Your task to perform on an android device: turn on airplane mode Image 0: 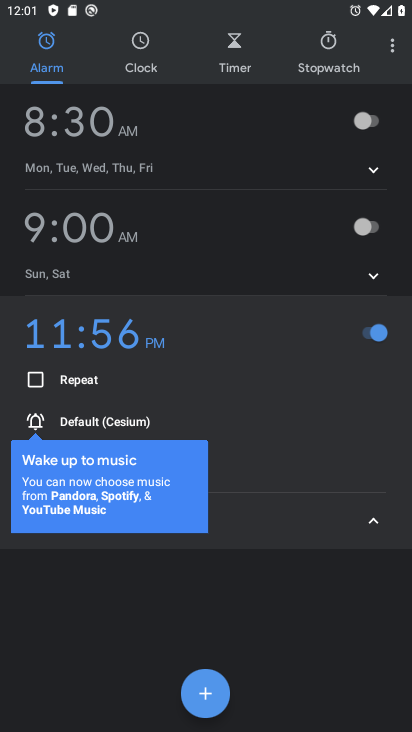
Step 0: press home button
Your task to perform on an android device: turn on airplane mode Image 1: 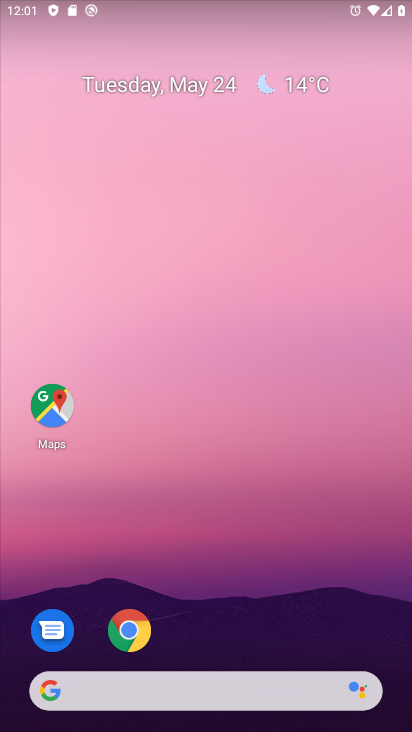
Step 1: drag from (381, 595) to (375, 199)
Your task to perform on an android device: turn on airplane mode Image 2: 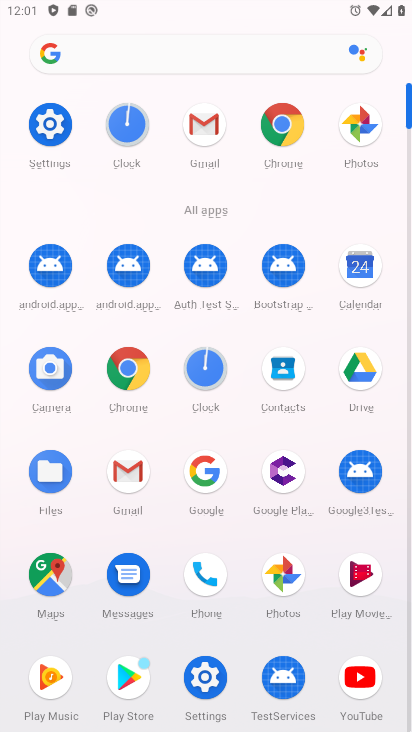
Step 2: click (47, 136)
Your task to perform on an android device: turn on airplane mode Image 3: 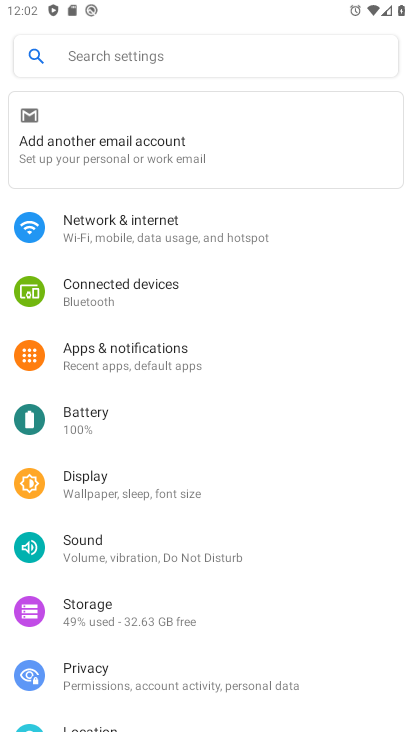
Step 3: click (136, 236)
Your task to perform on an android device: turn on airplane mode Image 4: 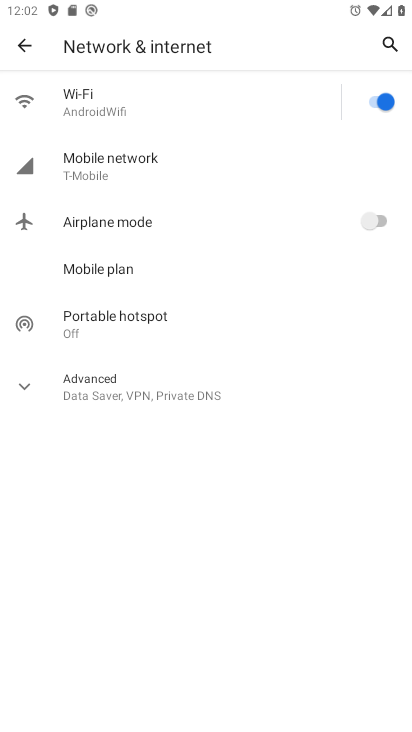
Step 4: click (378, 225)
Your task to perform on an android device: turn on airplane mode Image 5: 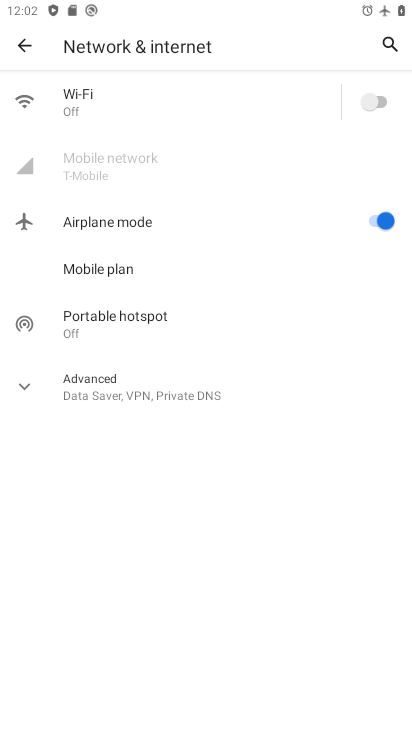
Step 5: task complete